Your task to perform on an android device: star an email in the gmail app Image 0: 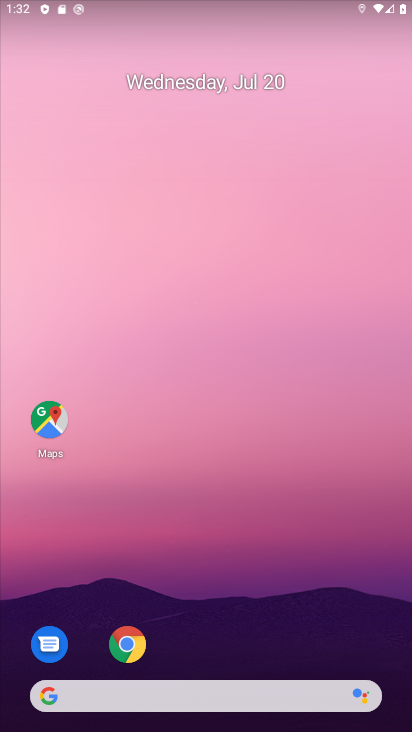
Step 0: click (220, 46)
Your task to perform on an android device: star an email in the gmail app Image 1: 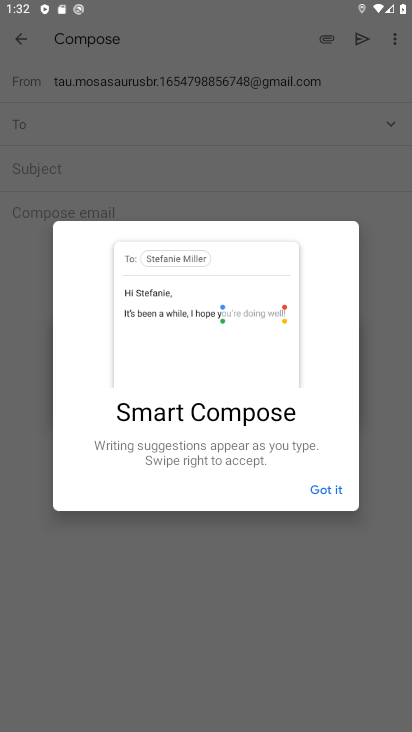
Step 1: press home button
Your task to perform on an android device: star an email in the gmail app Image 2: 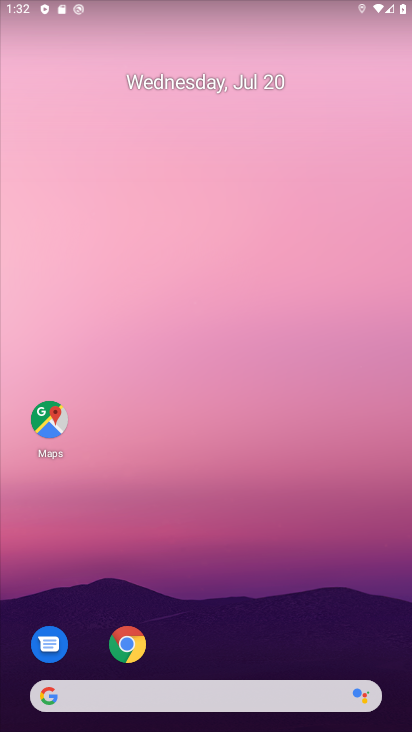
Step 2: drag from (273, 620) to (128, 123)
Your task to perform on an android device: star an email in the gmail app Image 3: 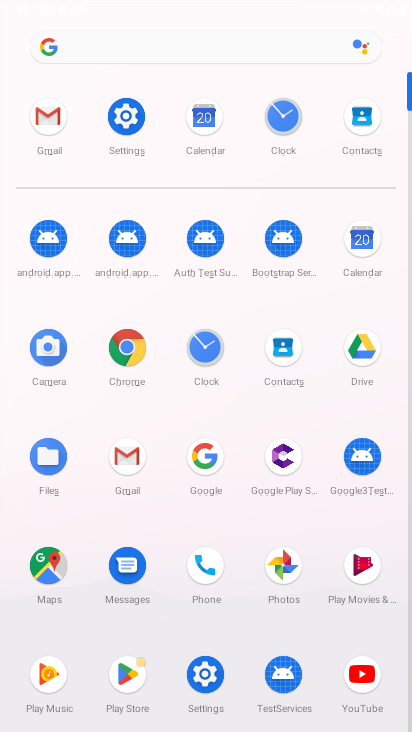
Step 3: click (49, 123)
Your task to perform on an android device: star an email in the gmail app Image 4: 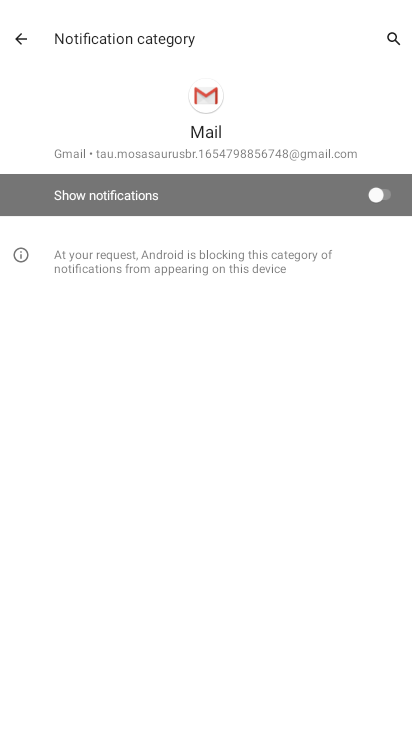
Step 4: click (28, 43)
Your task to perform on an android device: star an email in the gmail app Image 5: 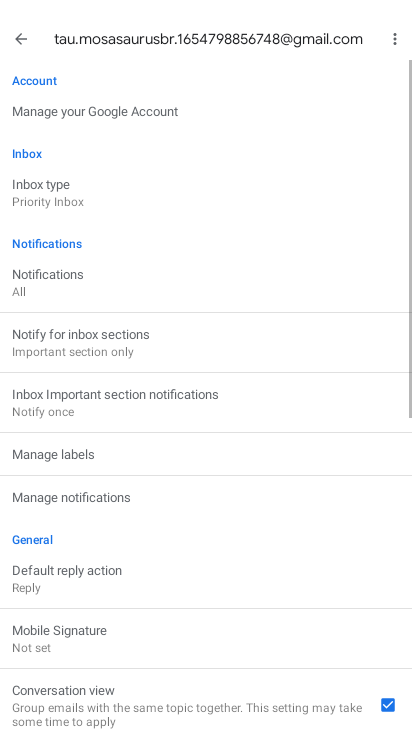
Step 5: click (28, 43)
Your task to perform on an android device: star an email in the gmail app Image 6: 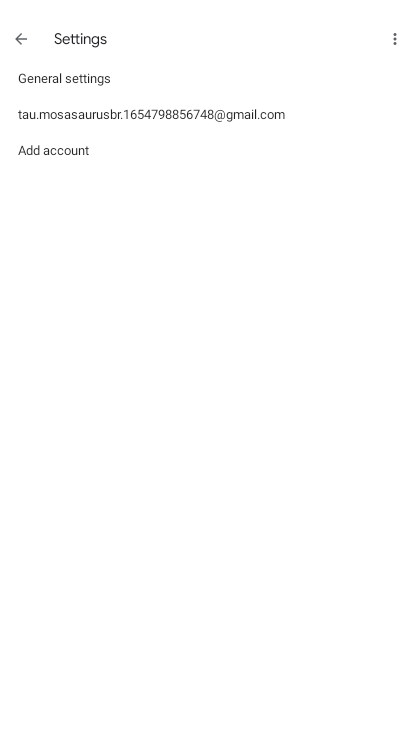
Step 6: click (31, 42)
Your task to perform on an android device: star an email in the gmail app Image 7: 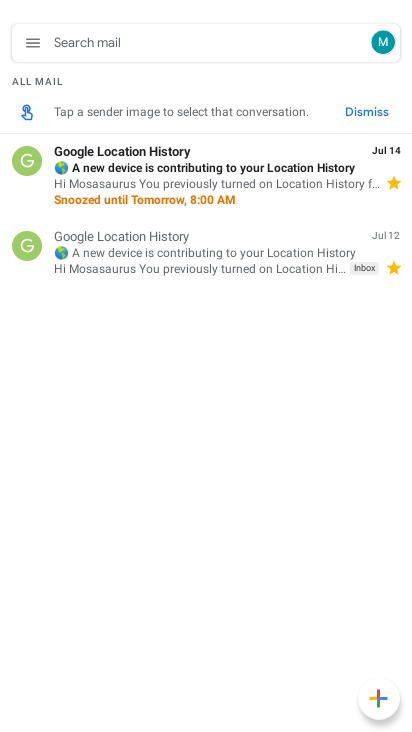
Step 7: click (38, 42)
Your task to perform on an android device: star an email in the gmail app Image 8: 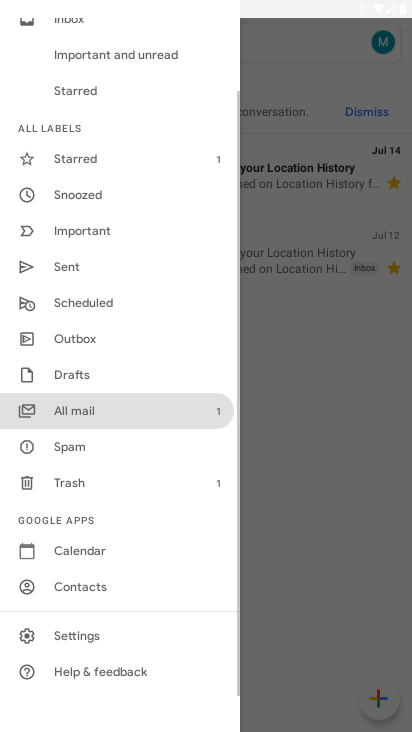
Step 8: click (63, 400)
Your task to perform on an android device: star an email in the gmail app Image 9: 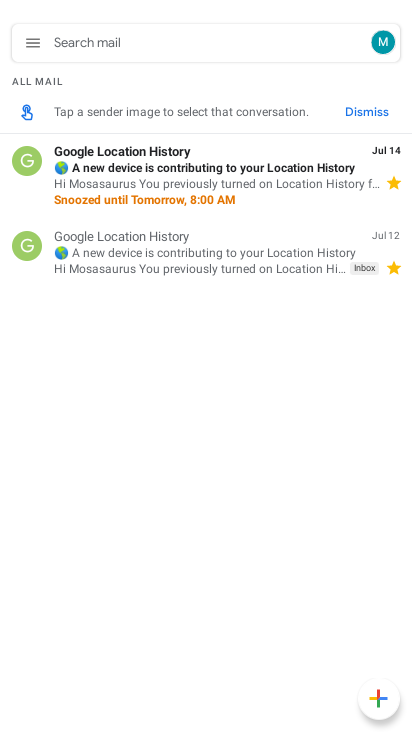
Step 9: task complete